Your task to perform on an android device: check storage Image 0: 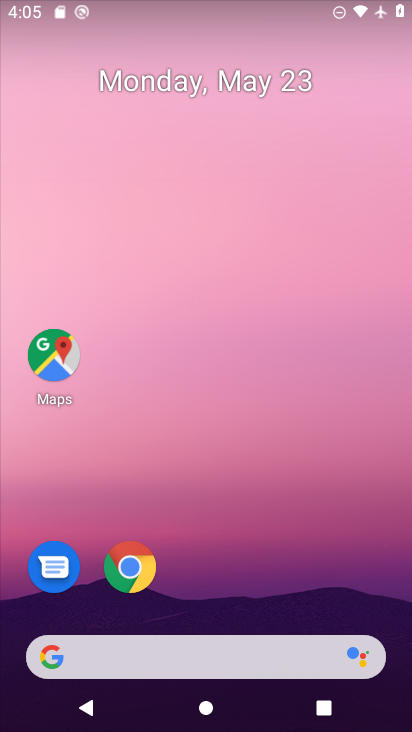
Step 0: drag from (396, 655) to (338, 202)
Your task to perform on an android device: check storage Image 1: 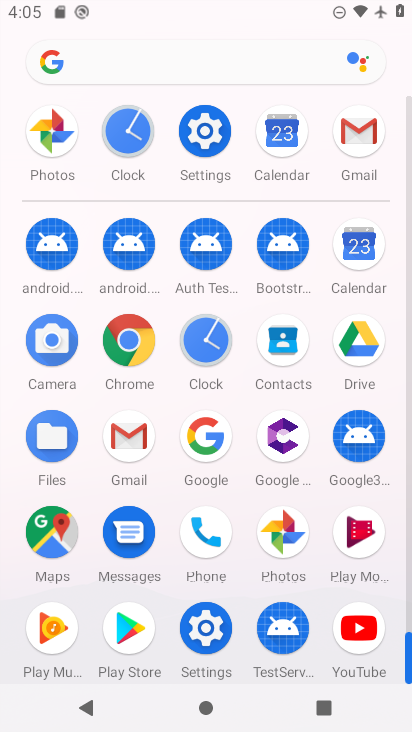
Step 1: click (208, 634)
Your task to perform on an android device: check storage Image 2: 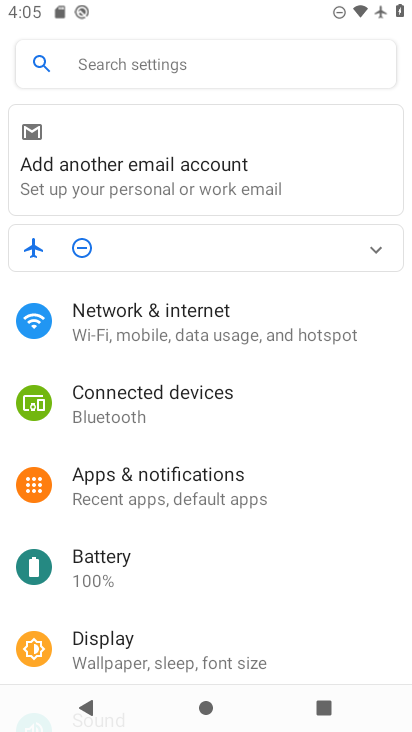
Step 2: drag from (369, 642) to (344, 200)
Your task to perform on an android device: check storage Image 3: 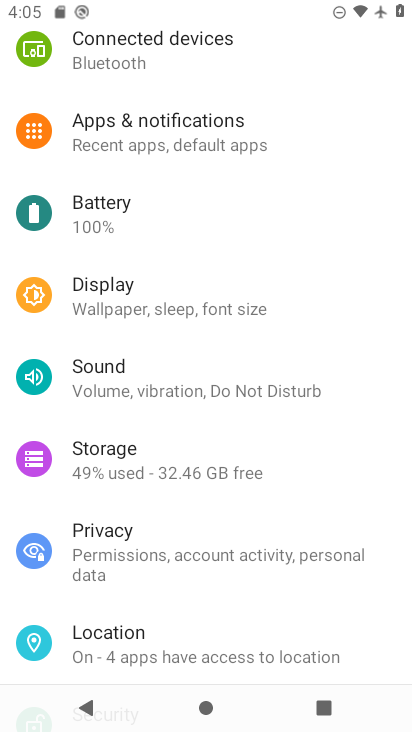
Step 3: click (90, 458)
Your task to perform on an android device: check storage Image 4: 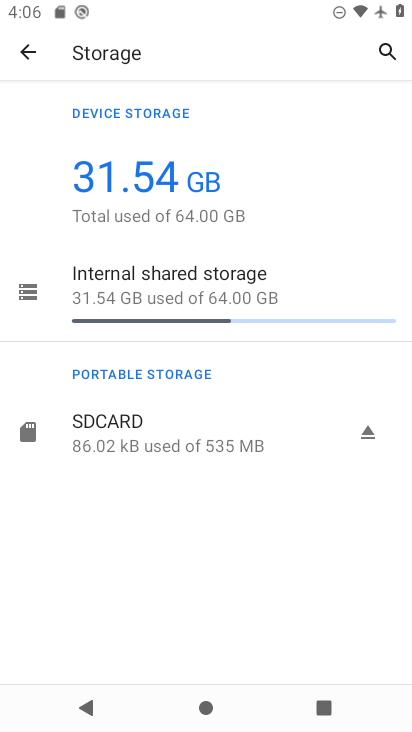
Step 4: task complete